Your task to perform on an android device: turn notification dots on Image 0: 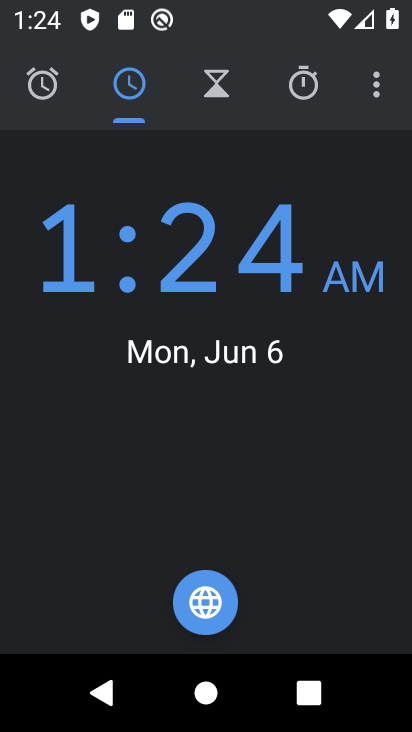
Step 0: press home button
Your task to perform on an android device: turn notification dots on Image 1: 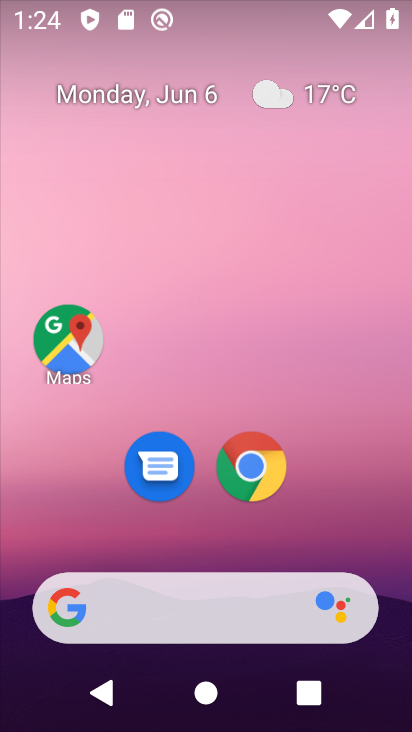
Step 1: drag from (330, 518) to (324, 124)
Your task to perform on an android device: turn notification dots on Image 2: 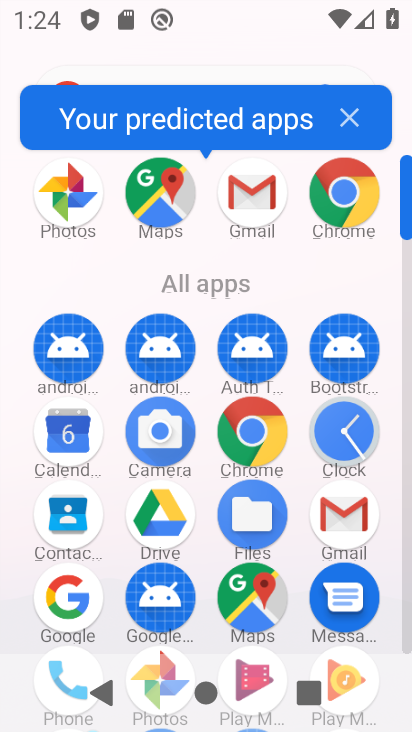
Step 2: drag from (114, 571) to (170, 185)
Your task to perform on an android device: turn notification dots on Image 3: 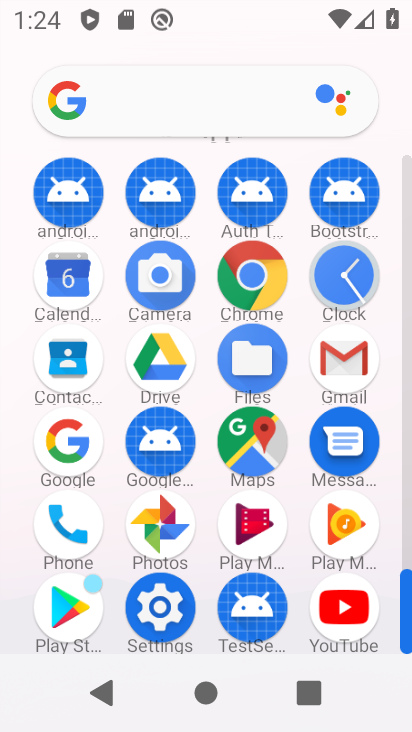
Step 3: click (149, 599)
Your task to perform on an android device: turn notification dots on Image 4: 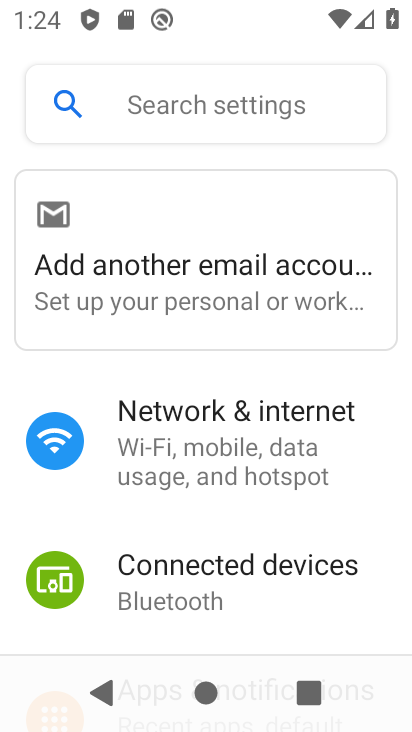
Step 4: drag from (61, 630) to (89, 268)
Your task to perform on an android device: turn notification dots on Image 5: 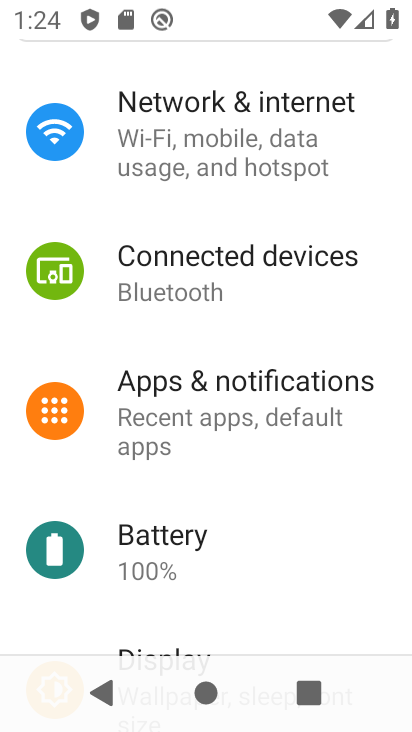
Step 5: click (253, 393)
Your task to perform on an android device: turn notification dots on Image 6: 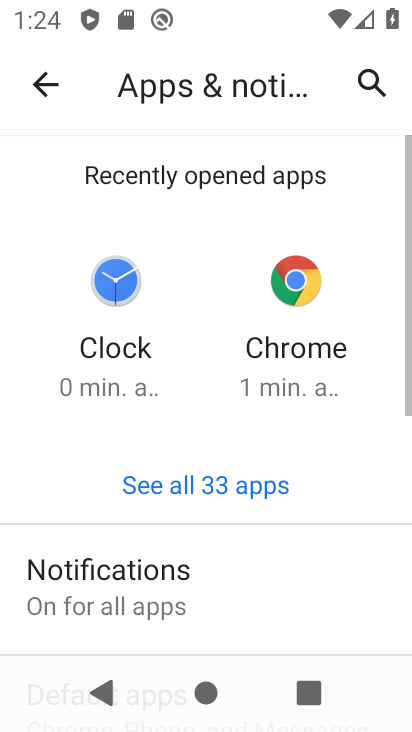
Step 6: drag from (285, 551) to (238, 120)
Your task to perform on an android device: turn notification dots on Image 7: 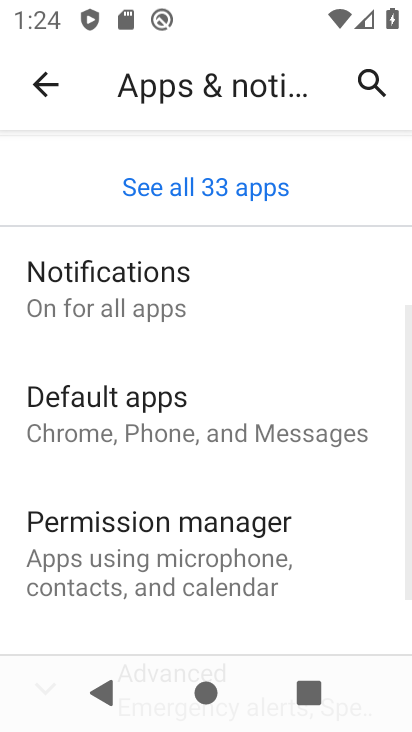
Step 7: drag from (253, 244) to (255, 54)
Your task to perform on an android device: turn notification dots on Image 8: 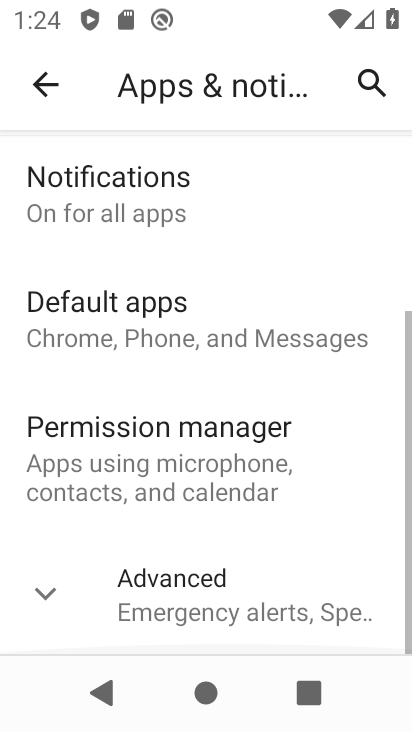
Step 8: click (159, 183)
Your task to perform on an android device: turn notification dots on Image 9: 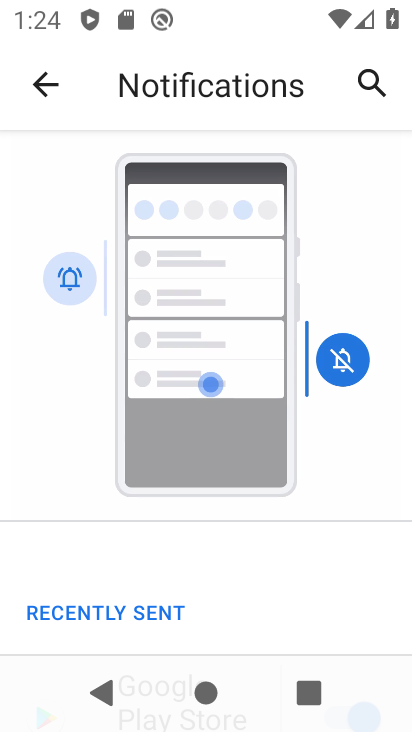
Step 9: drag from (273, 599) to (248, 113)
Your task to perform on an android device: turn notification dots on Image 10: 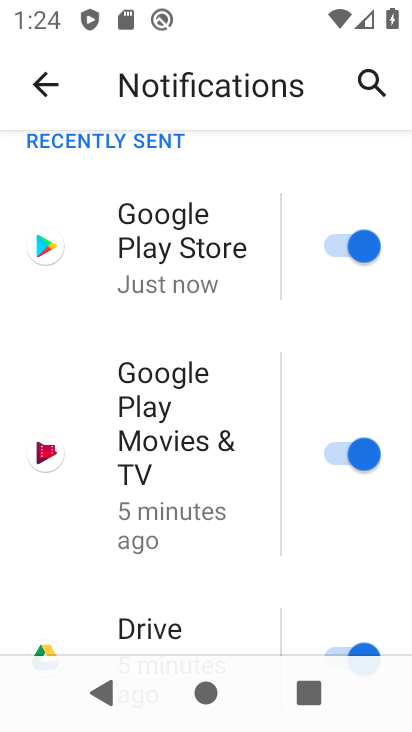
Step 10: drag from (46, 570) to (130, 122)
Your task to perform on an android device: turn notification dots on Image 11: 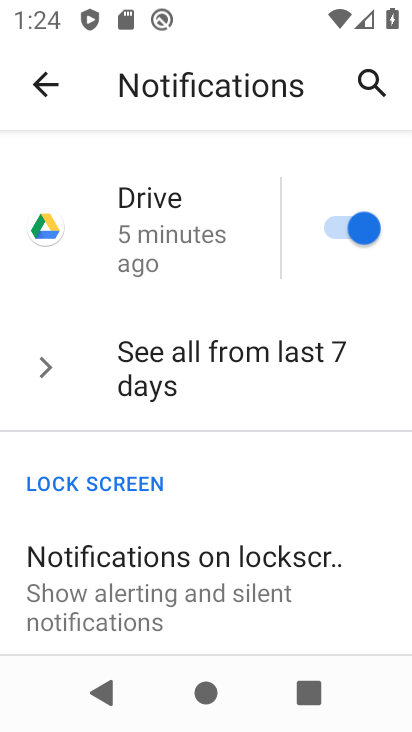
Step 11: drag from (194, 405) to (200, 230)
Your task to perform on an android device: turn notification dots on Image 12: 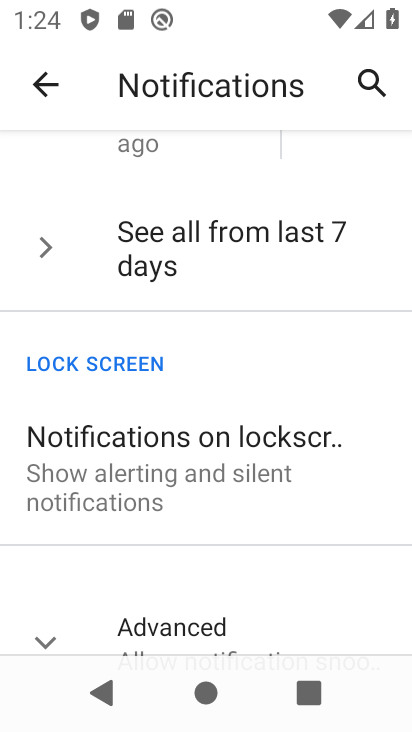
Step 12: click (50, 638)
Your task to perform on an android device: turn notification dots on Image 13: 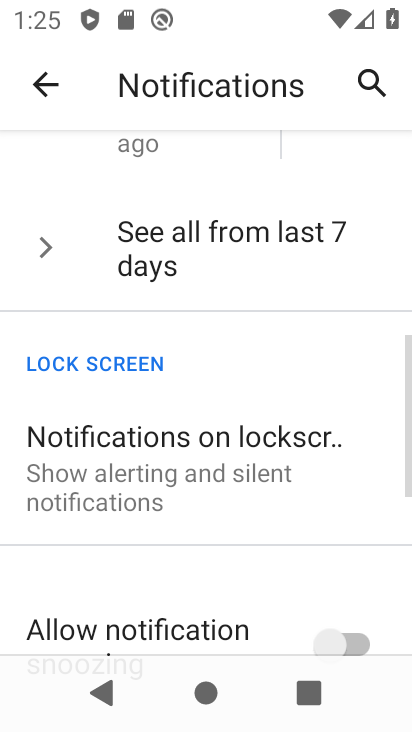
Step 13: task complete